Your task to perform on an android device: What is the news today? Image 0: 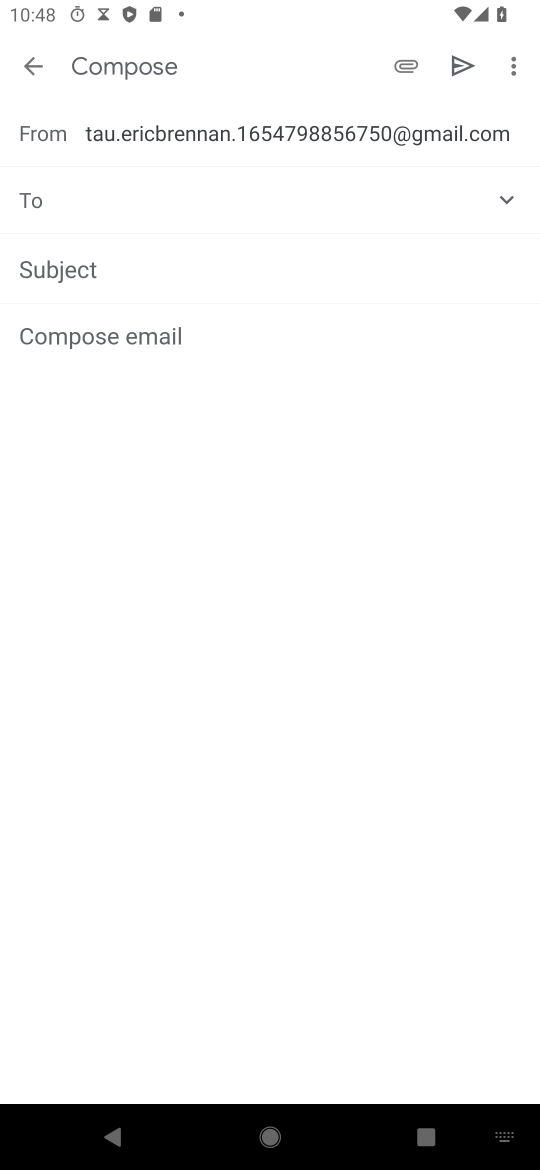
Step 0: press home button
Your task to perform on an android device: What is the news today? Image 1: 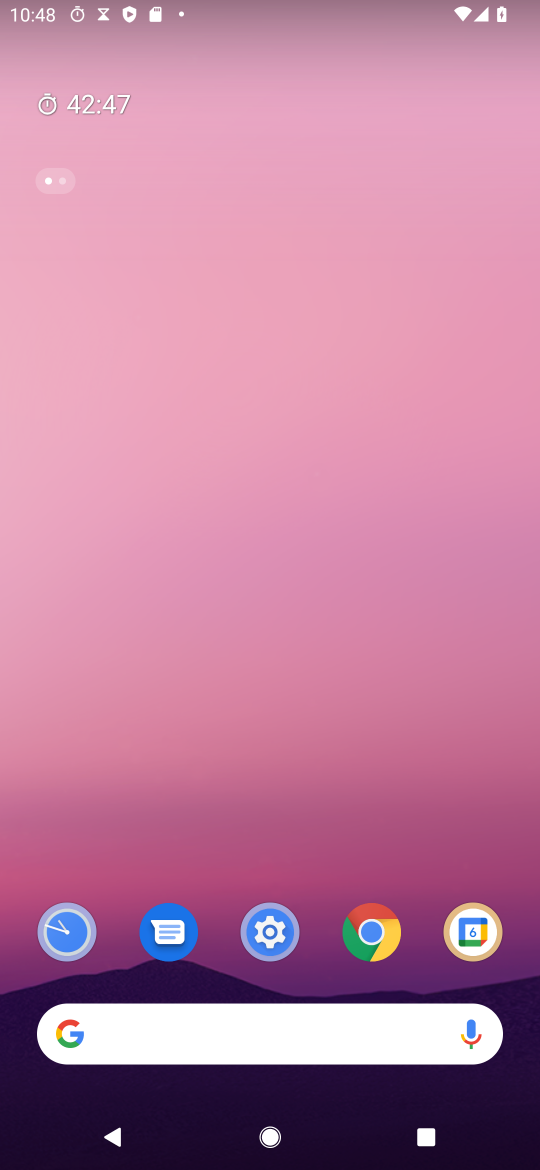
Step 1: drag from (352, 796) to (313, 39)
Your task to perform on an android device: What is the news today? Image 2: 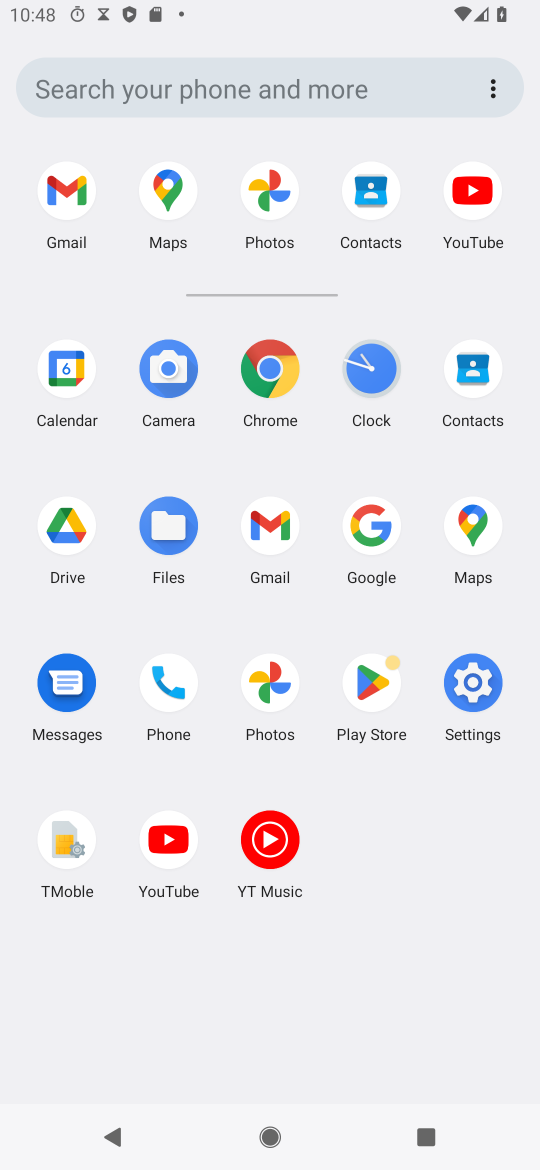
Step 2: click (284, 371)
Your task to perform on an android device: What is the news today? Image 3: 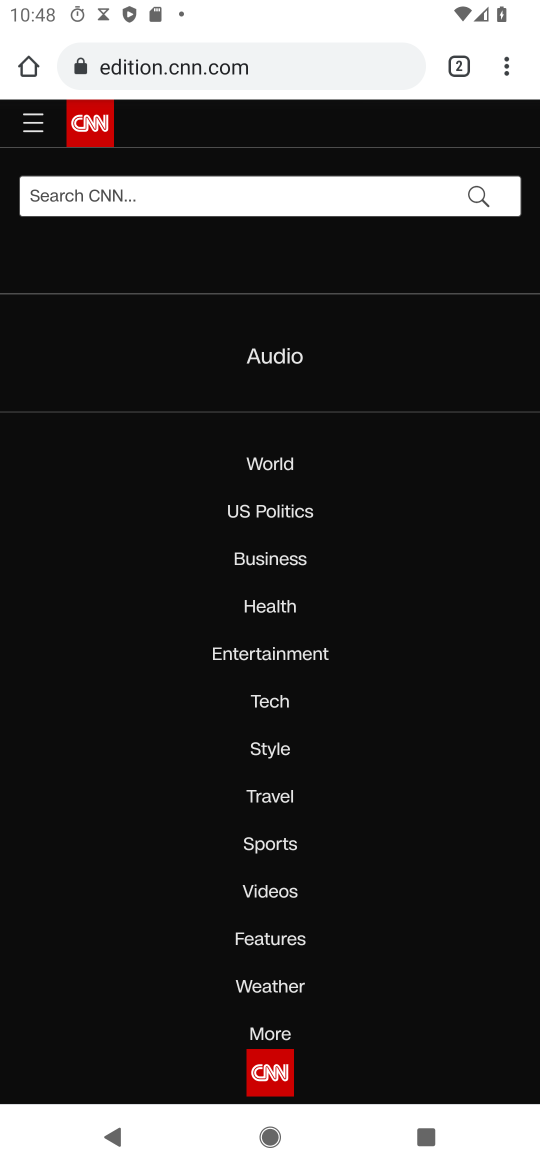
Step 3: click (249, 73)
Your task to perform on an android device: What is the news today? Image 4: 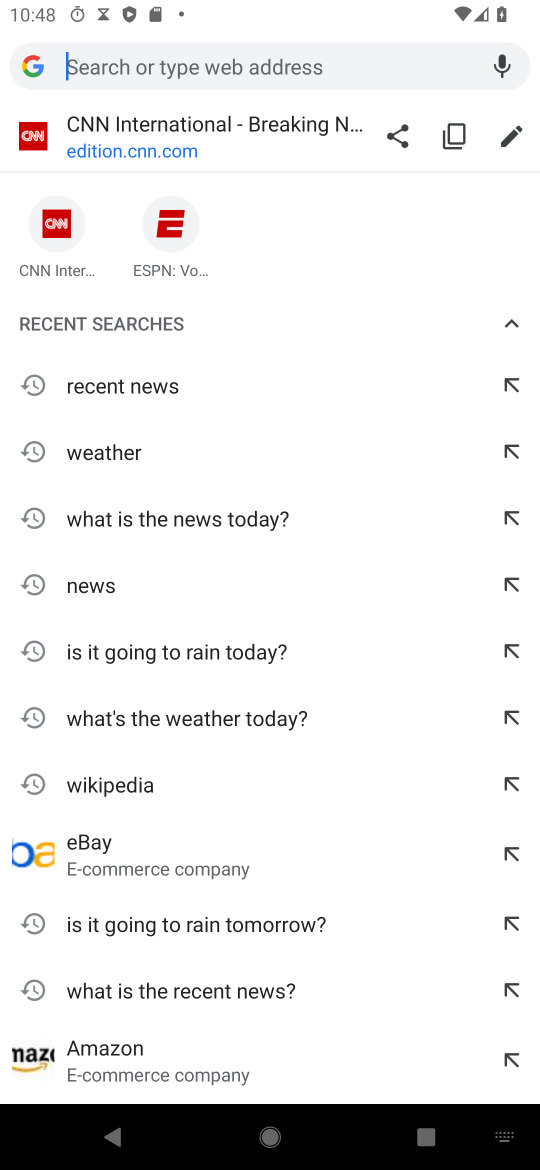
Step 4: type "What is the news today?"
Your task to perform on an android device: What is the news today? Image 5: 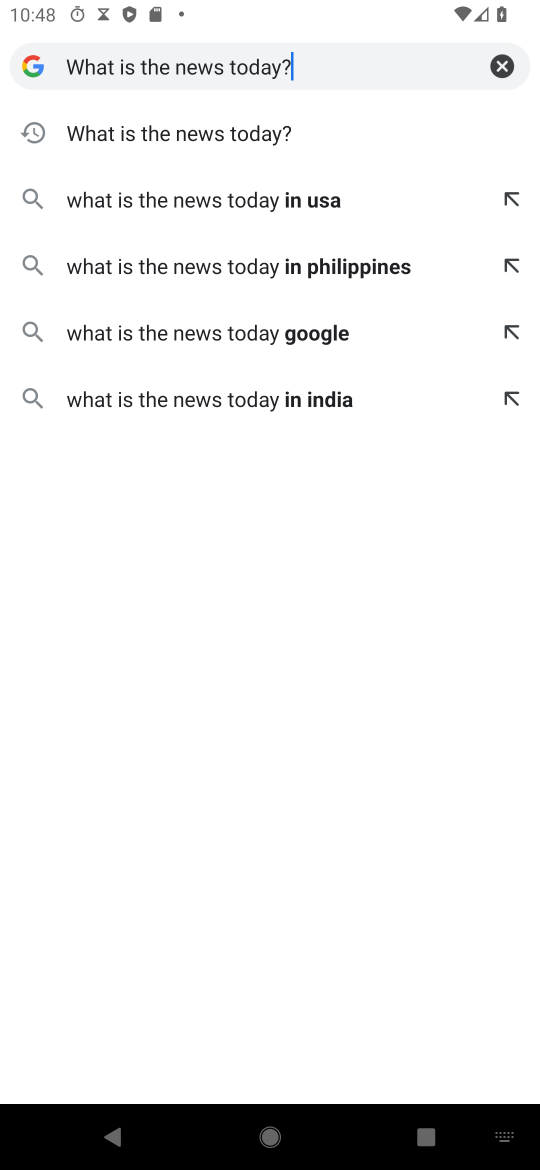
Step 5: click (225, 147)
Your task to perform on an android device: What is the news today? Image 6: 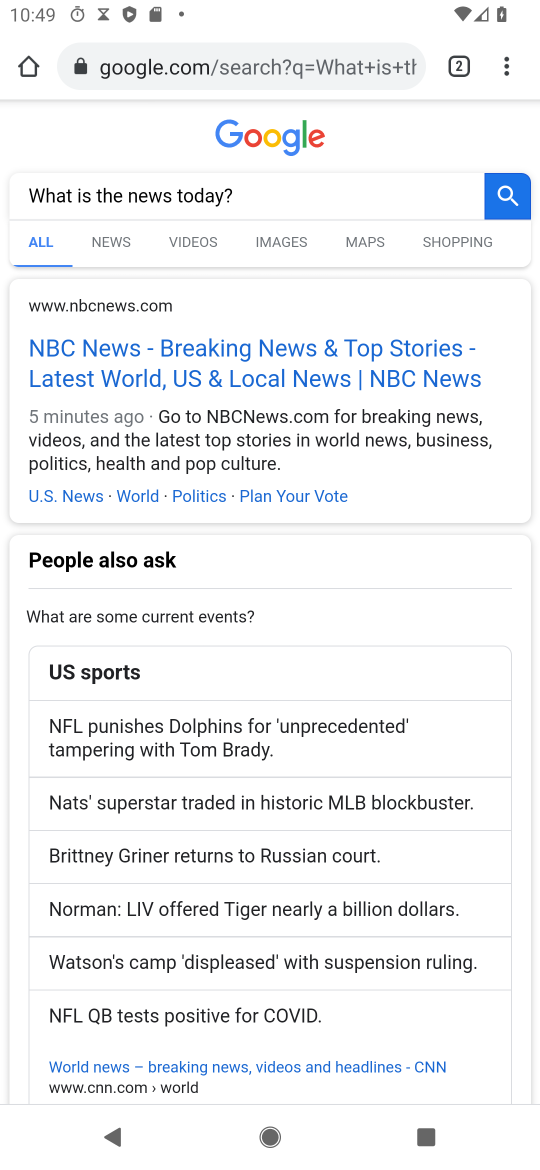
Step 6: click (320, 361)
Your task to perform on an android device: What is the news today? Image 7: 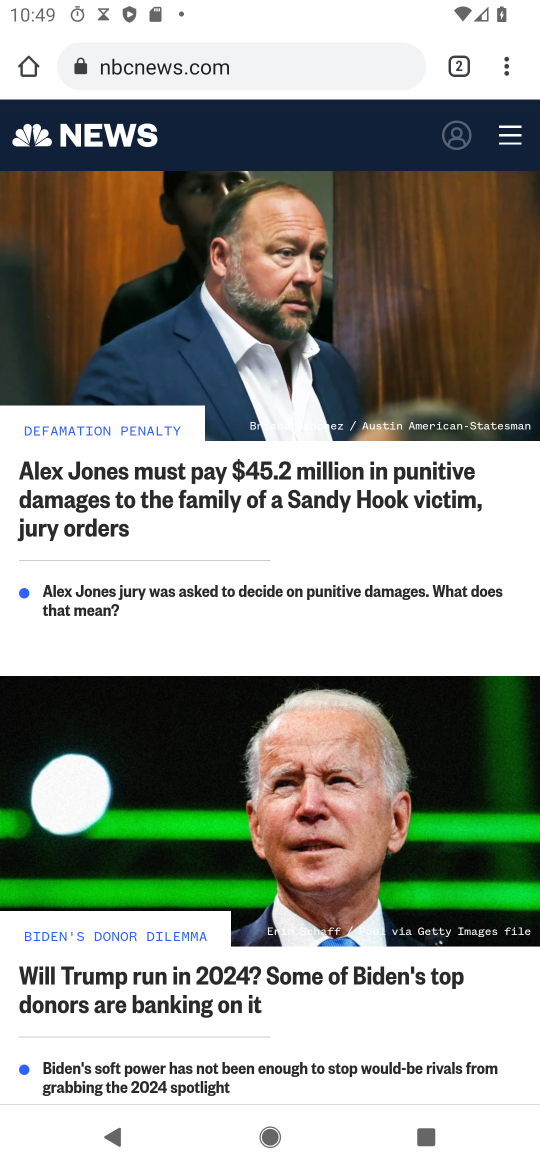
Step 7: task complete